Your task to perform on an android device: check out phone information Image 0: 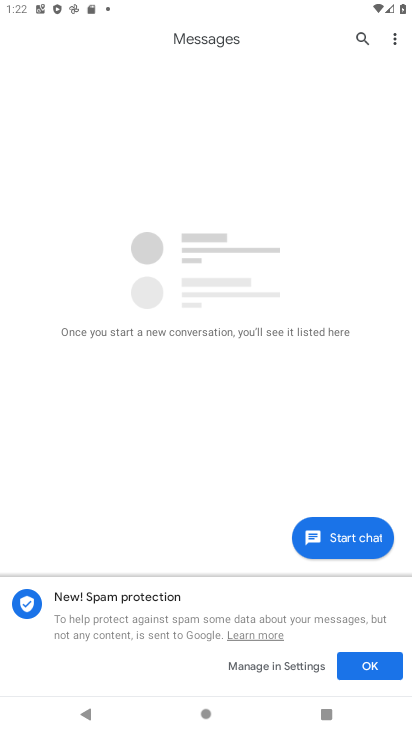
Step 0: press home button
Your task to perform on an android device: check out phone information Image 1: 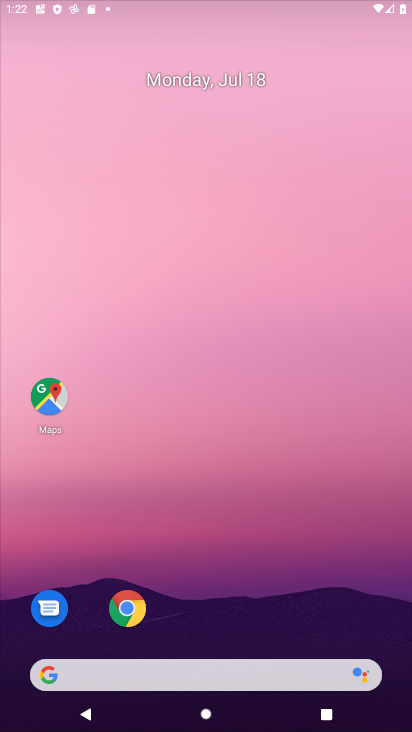
Step 1: drag from (372, 679) to (336, 27)
Your task to perform on an android device: check out phone information Image 2: 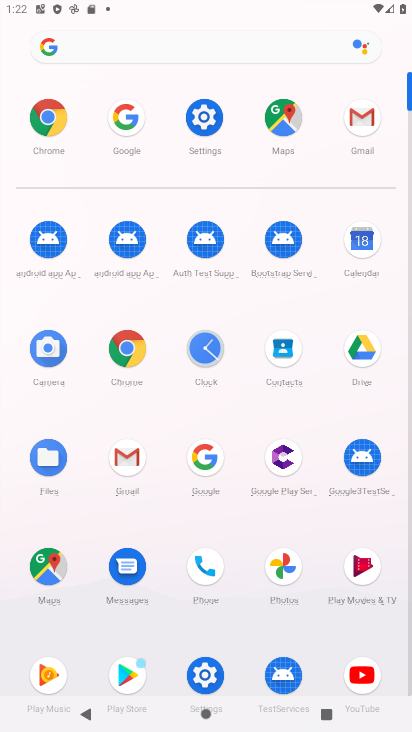
Step 2: click (200, 677)
Your task to perform on an android device: check out phone information Image 3: 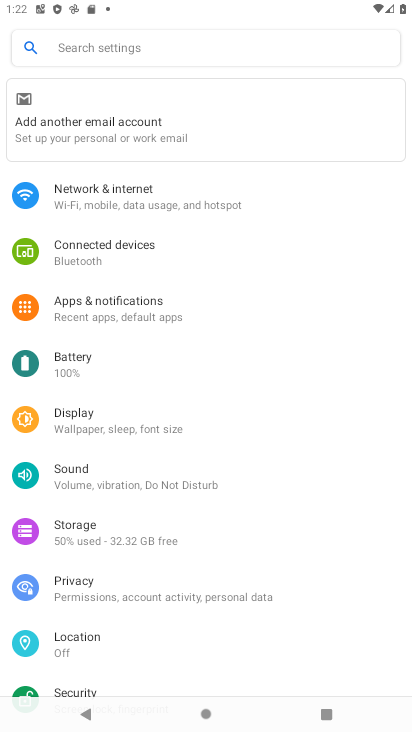
Step 3: task complete